Your task to perform on an android device: toggle notifications settings in the gmail app Image 0: 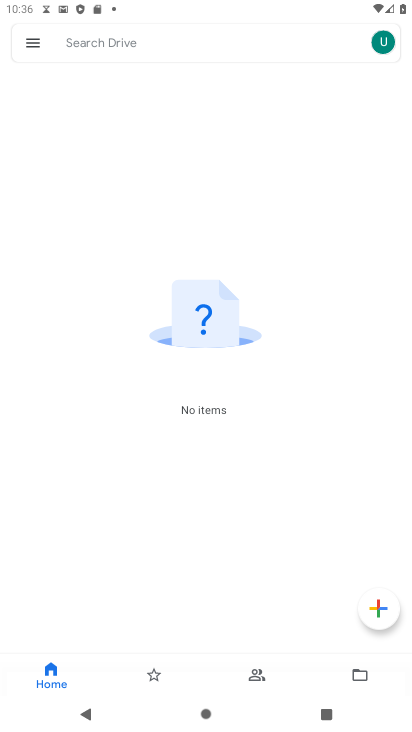
Step 0: press home button
Your task to perform on an android device: toggle notifications settings in the gmail app Image 1: 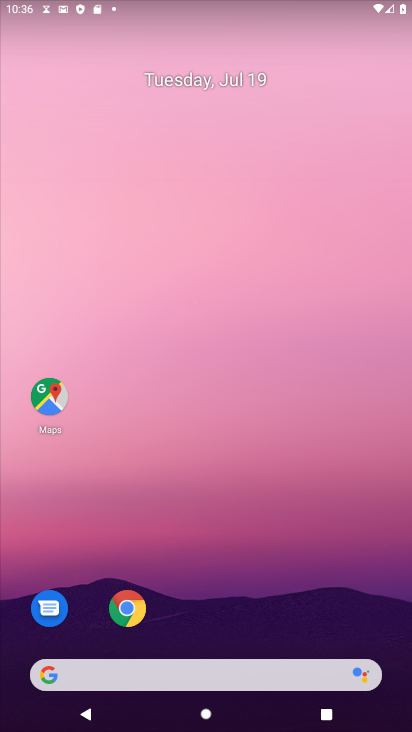
Step 1: drag from (315, 598) to (355, 3)
Your task to perform on an android device: toggle notifications settings in the gmail app Image 2: 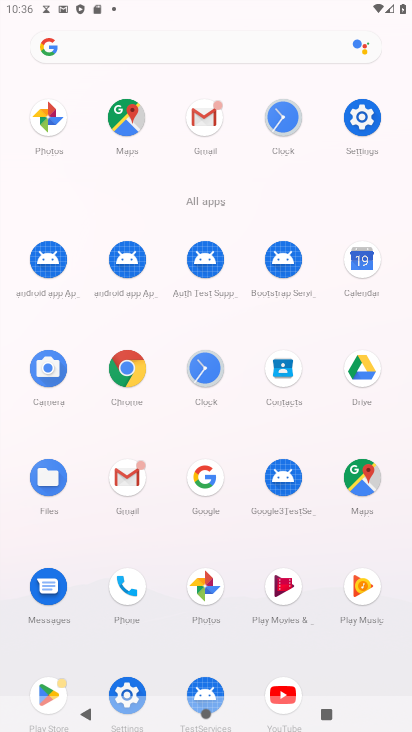
Step 2: click (120, 478)
Your task to perform on an android device: toggle notifications settings in the gmail app Image 3: 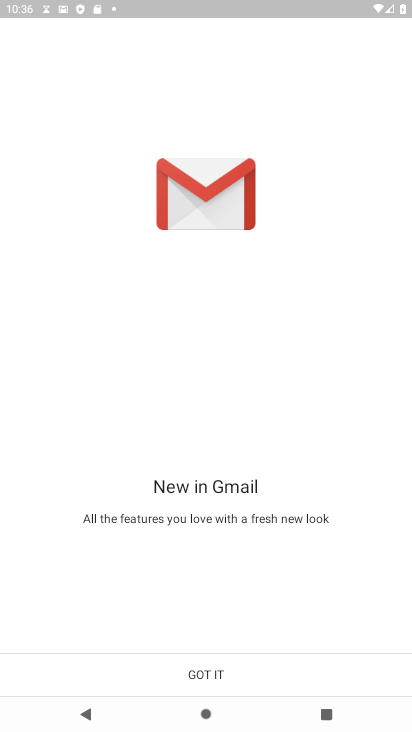
Step 3: click (266, 669)
Your task to perform on an android device: toggle notifications settings in the gmail app Image 4: 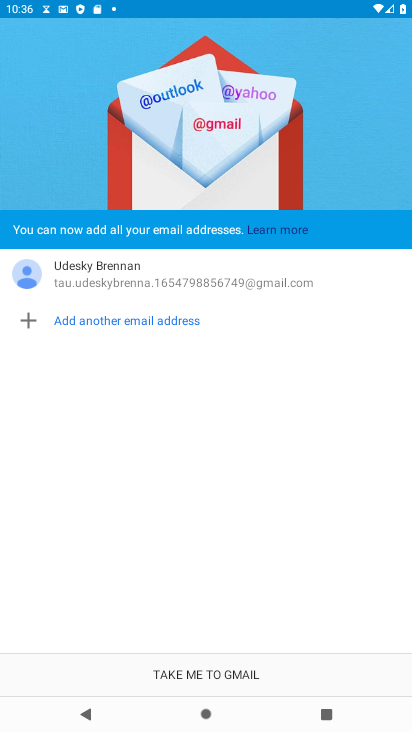
Step 4: click (202, 663)
Your task to perform on an android device: toggle notifications settings in the gmail app Image 5: 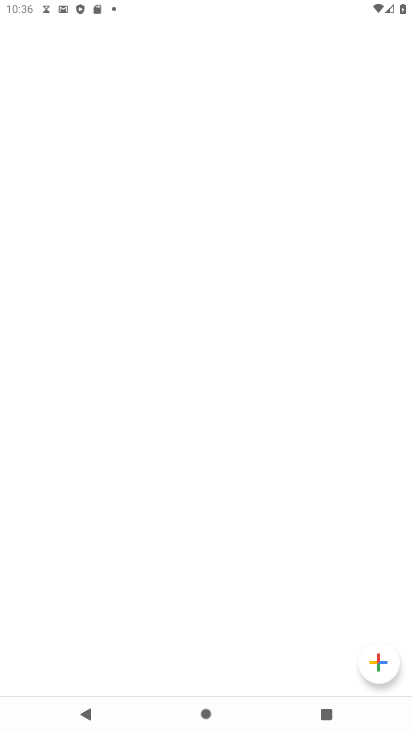
Step 5: drag from (292, 658) to (201, 662)
Your task to perform on an android device: toggle notifications settings in the gmail app Image 6: 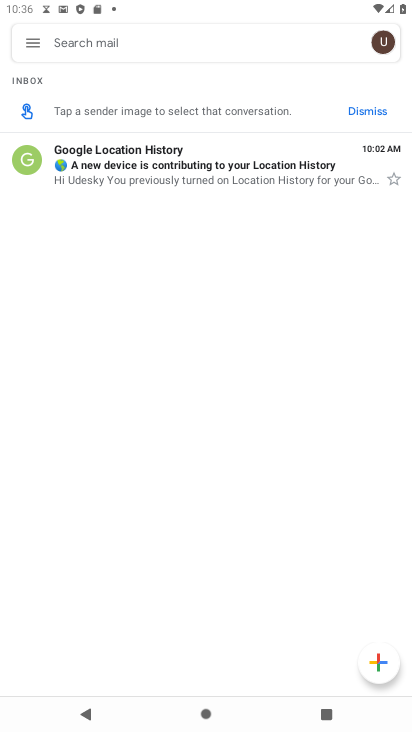
Step 6: click (32, 47)
Your task to perform on an android device: toggle notifications settings in the gmail app Image 7: 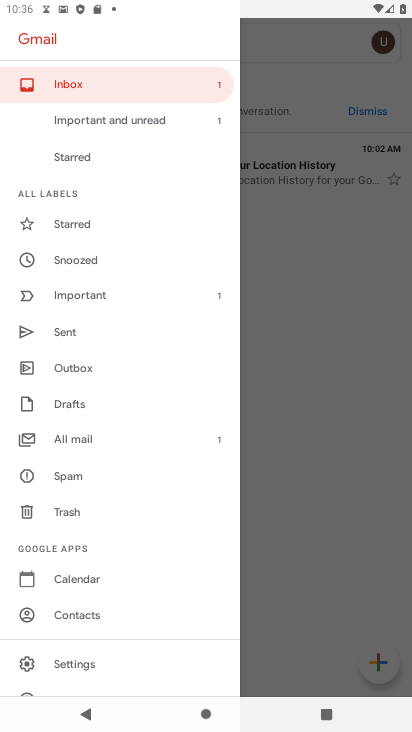
Step 7: click (86, 664)
Your task to perform on an android device: toggle notifications settings in the gmail app Image 8: 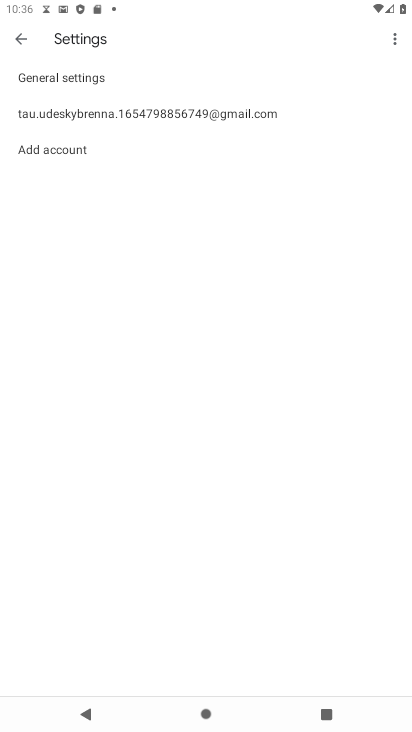
Step 8: click (154, 117)
Your task to perform on an android device: toggle notifications settings in the gmail app Image 9: 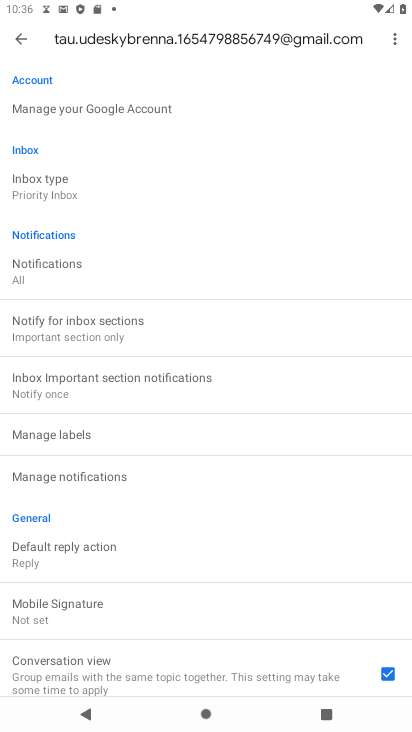
Step 9: click (89, 471)
Your task to perform on an android device: toggle notifications settings in the gmail app Image 10: 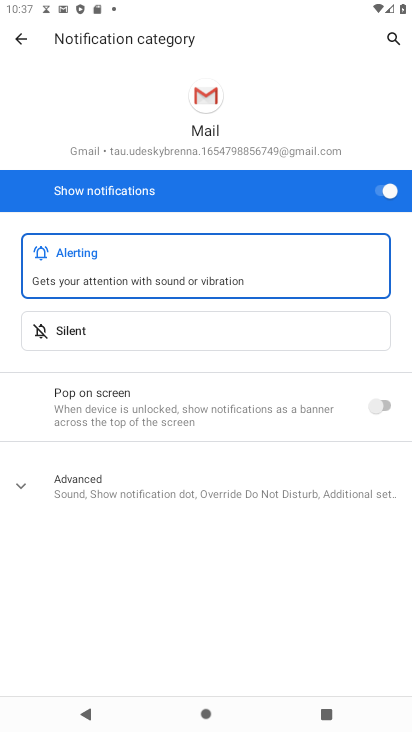
Step 10: click (384, 189)
Your task to perform on an android device: toggle notifications settings in the gmail app Image 11: 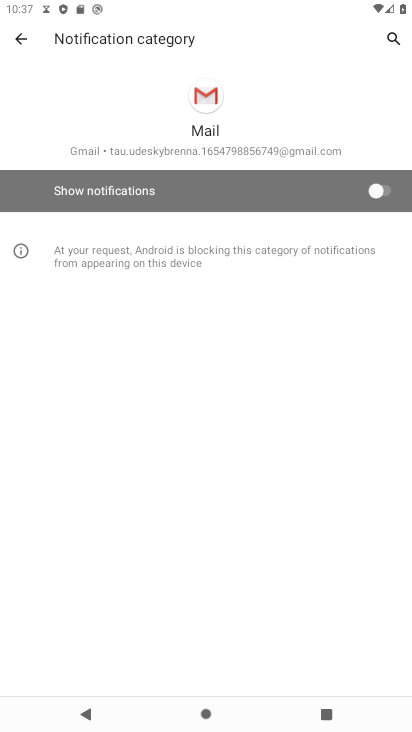
Step 11: task complete